Your task to perform on an android device: open chrome and create a bookmark for the current page Image 0: 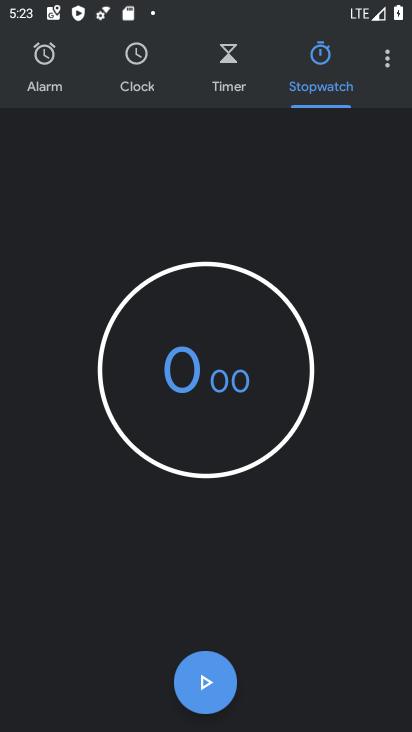
Step 0: press home button
Your task to perform on an android device: open chrome and create a bookmark for the current page Image 1: 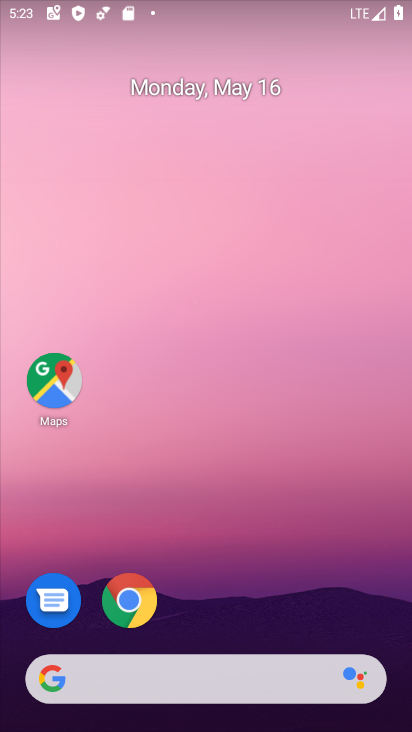
Step 1: click (151, 608)
Your task to perform on an android device: open chrome and create a bookmark for the current page Image 2: 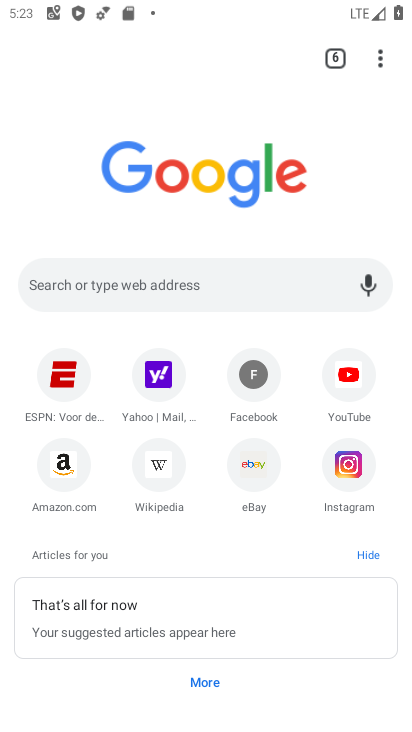
Step 2: task complete